Your task to perform on an android device: Go to display settings Image 0: 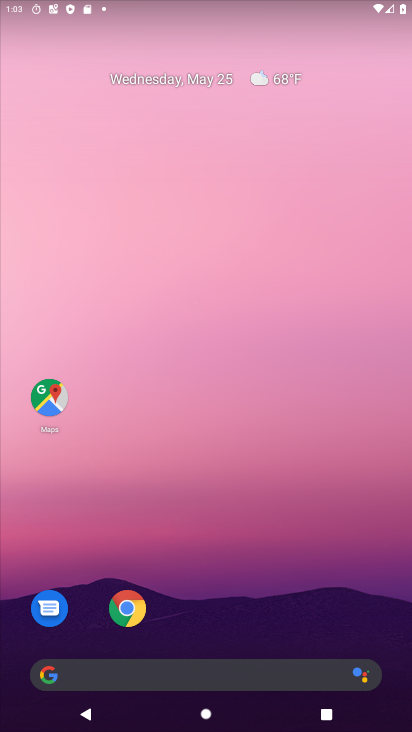
Step 0: drag from (324, 527) to (147, 9)
Your task to perform on an android device: Go to display settings Image 1: 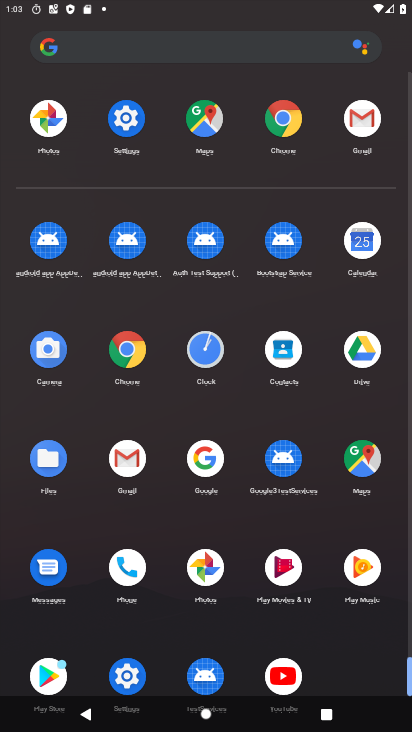
Step 1: click (134, 150)
Your task to perform on an android device: Go to display settings Image 2: 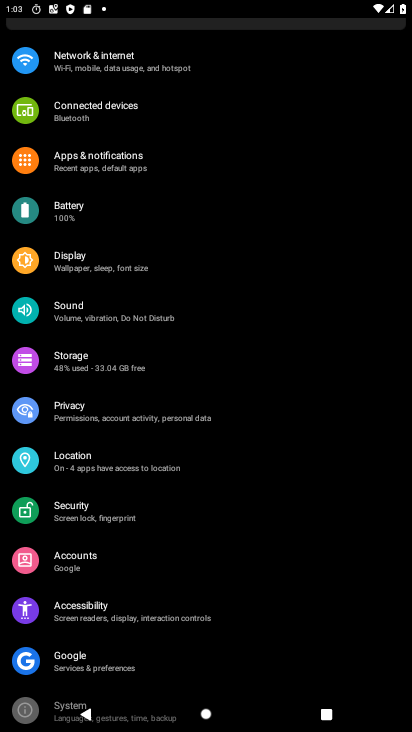
Step 2: click (107, 277)
Your task to perform on an android device: Go to display settings Image 3: 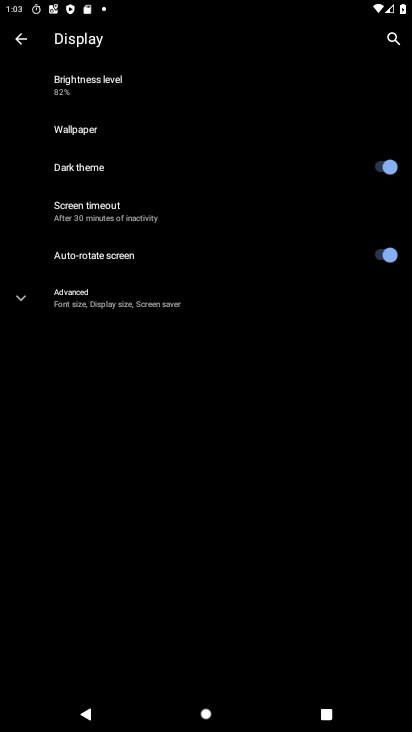
Step 3: task complete